Your task to perform on an android device: change the clock style Image 0: 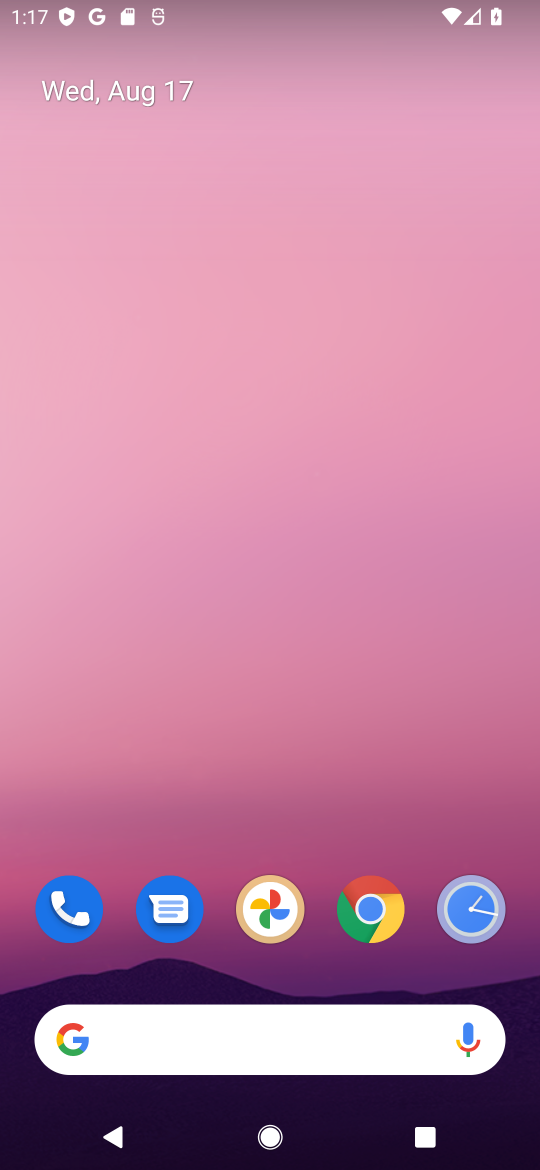
Step 0: click (478, 904)
Your task to perform on an android device: change the clock style Image 1: 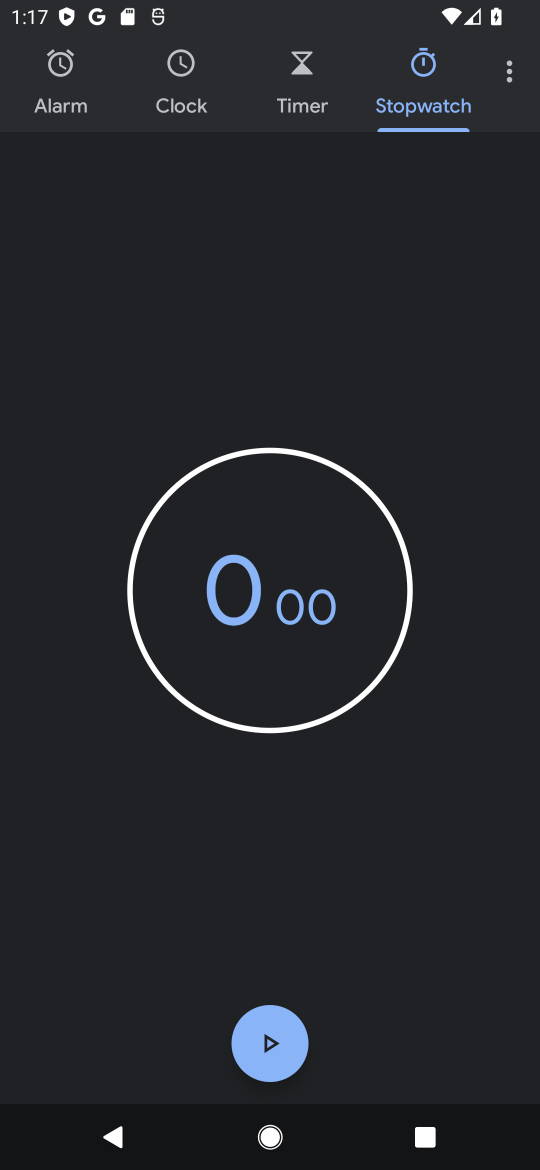
Step 1: click (518, 75)
Your task to perform on an android device: change the clock style Image 2: 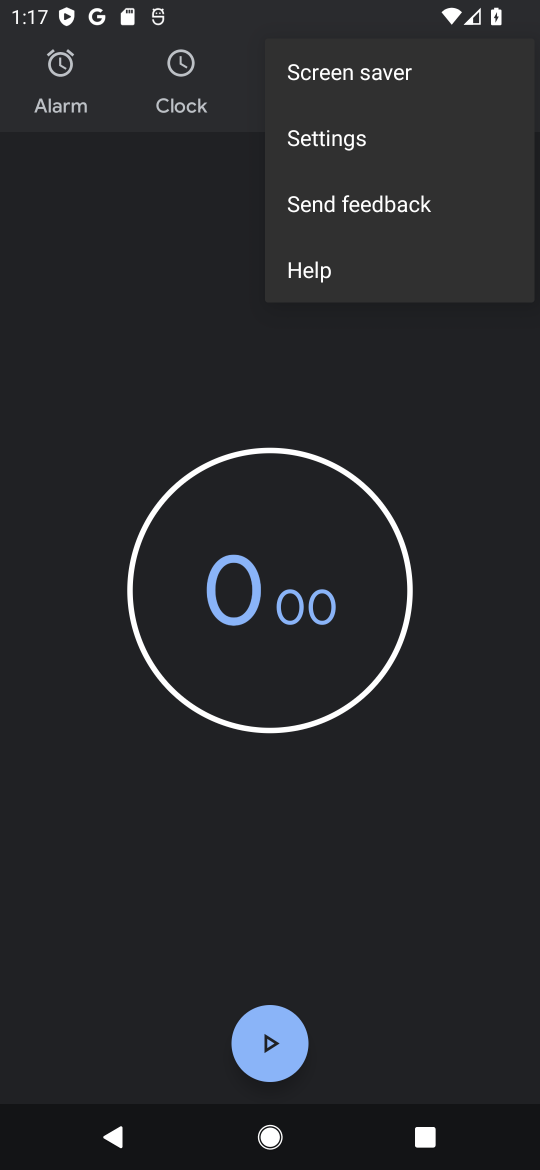
Step 2: click (348, 137)
Your task to perform on an android device: change the clock style Image 3: 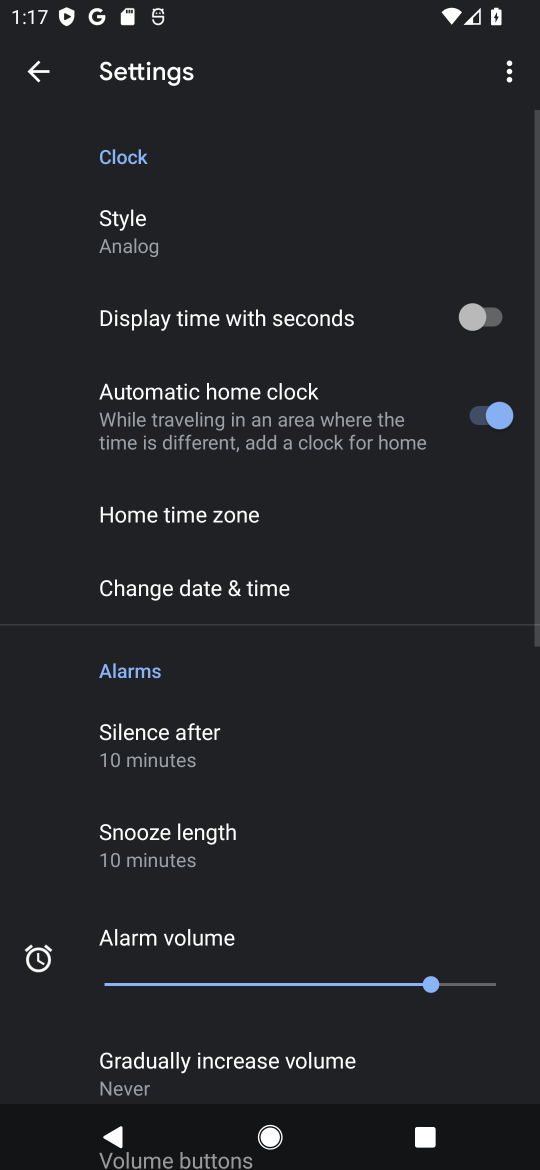
Step 3: click (133, 221)
Your task to perform on an android device: change the clock style Image 4: 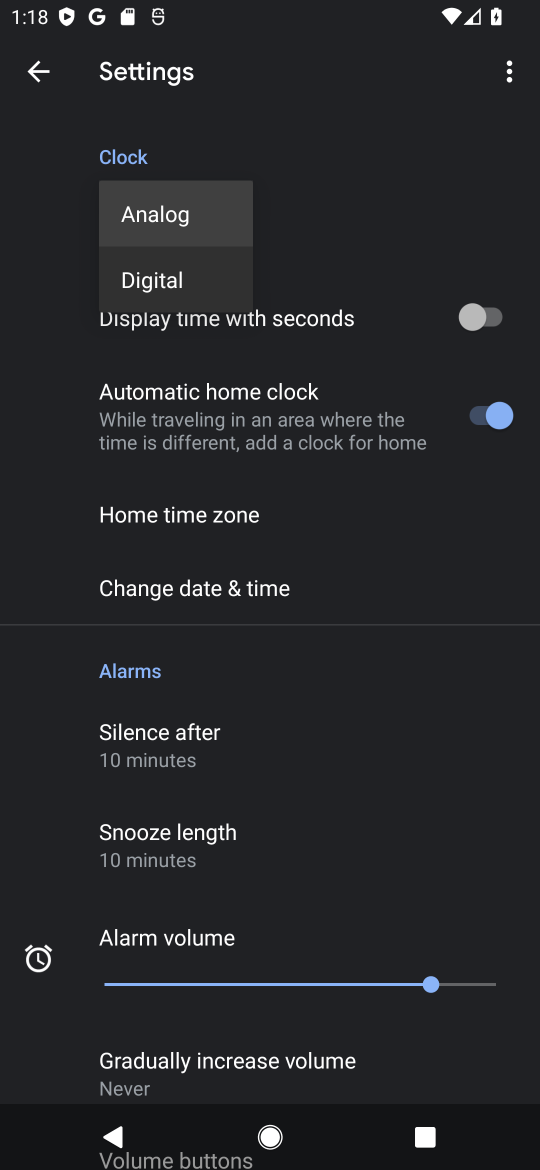
Step 4: click (138, 269)
Your task to perform on an android device: change the clock style Image 5: 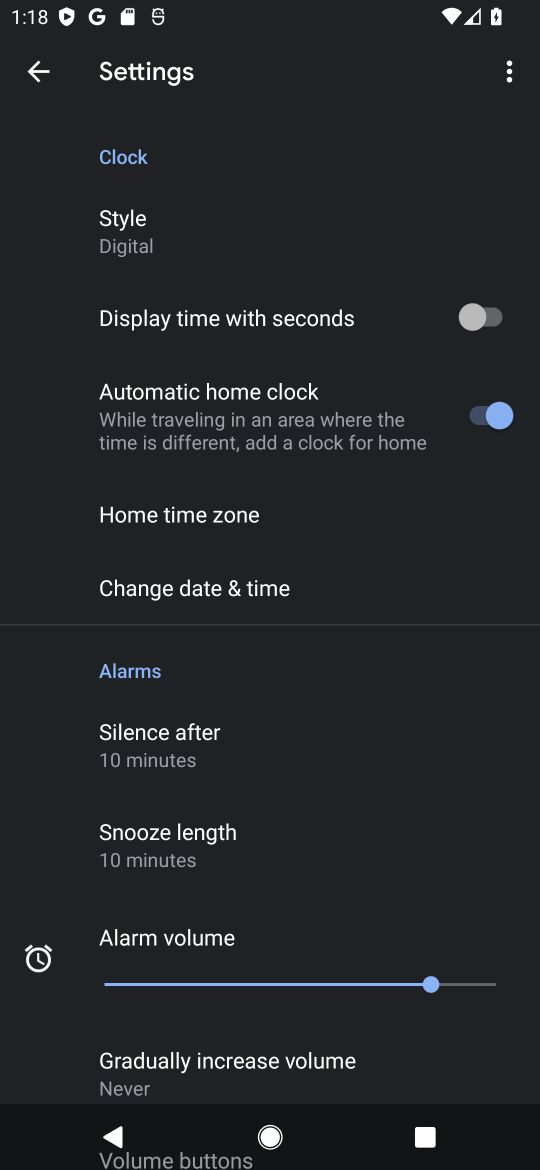
Step 5: task complete